Your task to perform on an android device: choose inbox layout in the gmail app Image 0: 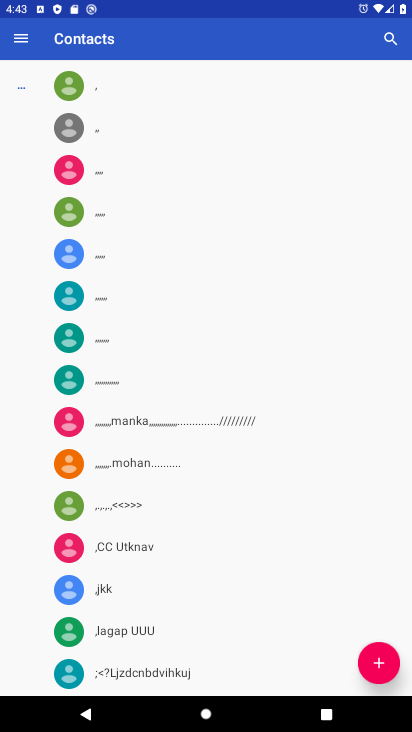
Step 0: press home button
Your task to perform on an android device: choose inbox layout in the gmail app Image 1: 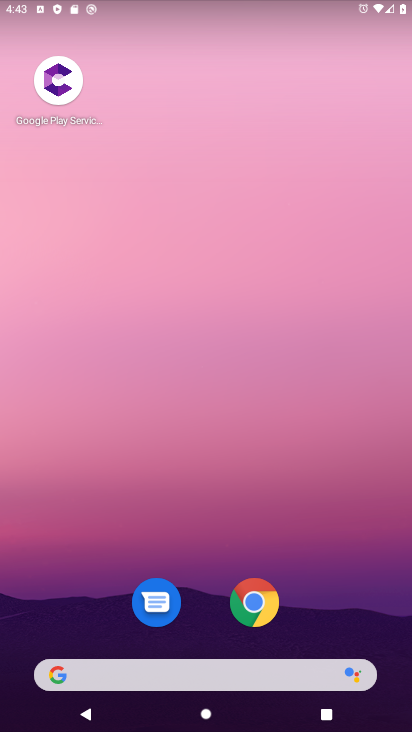
Step 1: drag from (217, 658) to (244, 266)
Your task to perform on an android device: choose inbox layout in the gmail app Image 2: 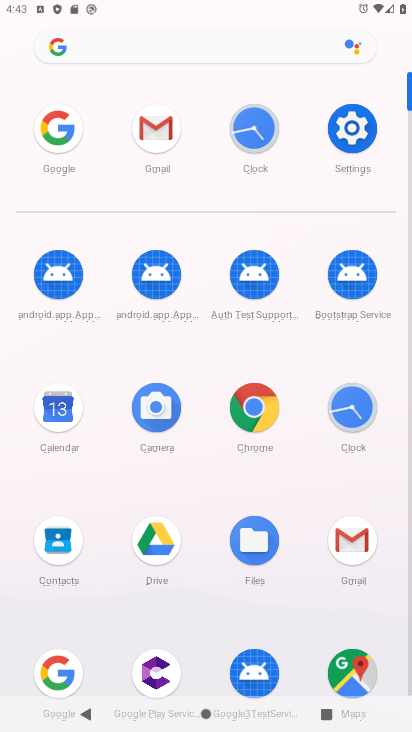
Step 2: click (342, 537)
Your task to perform on an android device: choose inbox layout in the gmail app Image 3: 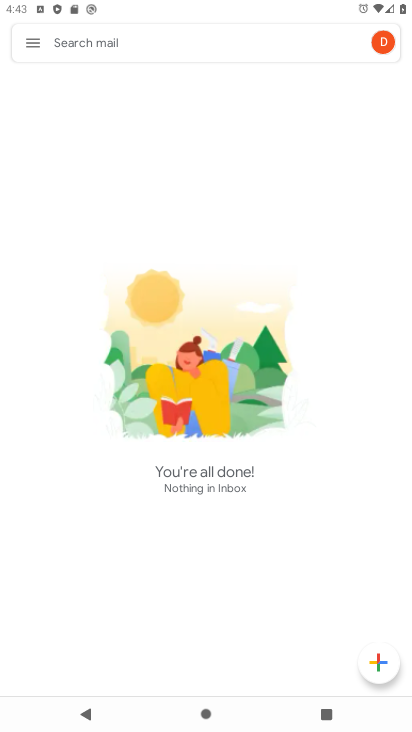
Step 3: click (33, 39)
Your task to perform on an android device: choose inbox layout in the gmail app Image 4: 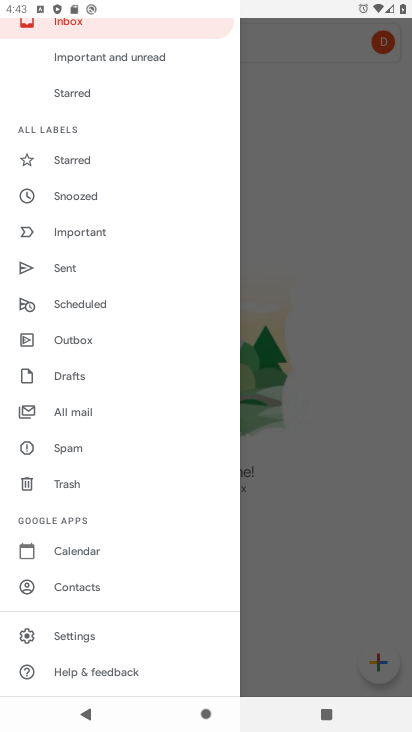
Step 4: click (92, 637)
Your task to perform on an android device: choose inbox layout in the gmail app Image 5: 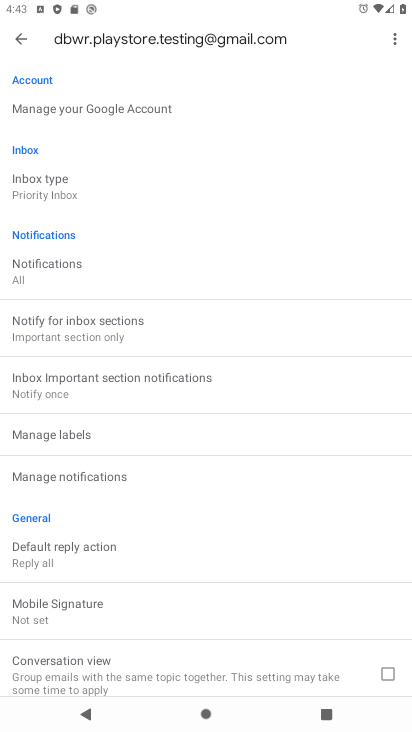
Step 5: drag from (84, 669) to (135, 274)
Your task to perform on an android device: choose inbox layout in the gmail app Image 6: 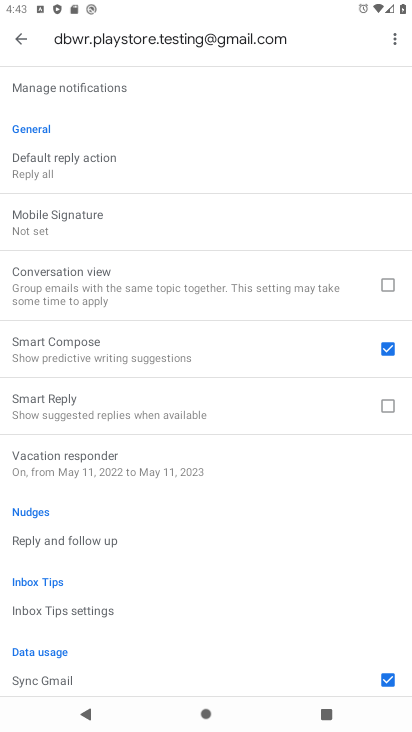
Step 6: drag from (139, 640) to (180, 279)
Your task to perform on an android device: choose inbox layout in the gmail app Image 7: 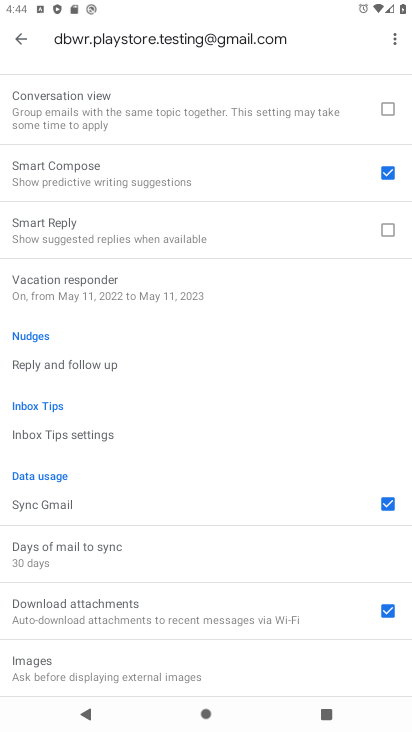
Step 7: drag from (196, 167) to (213, 509)
Your task to perform on an android device: choose inbox layout in the gmail app Image 8: 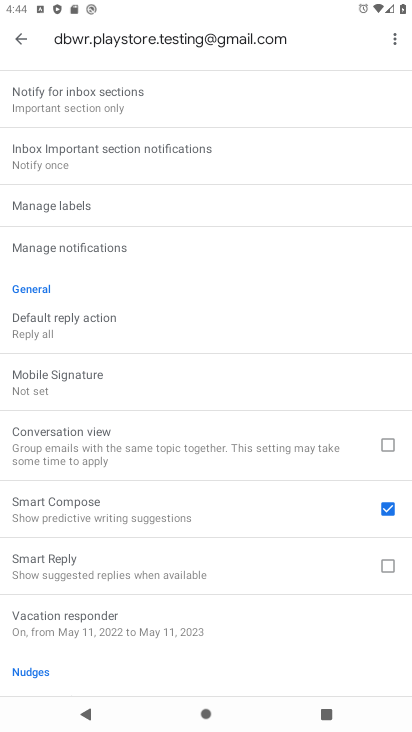
Step 8: drag from (111, 70) to (133, 429)
Your task to perform on an android device: choose inbox layout in the gmail app Image 9: 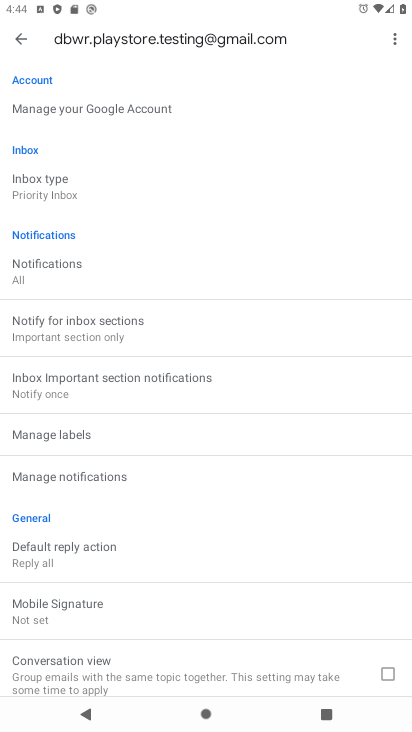
Step 9: click (28, 179)
Your task to perform on an android device: choose inbox layout in the gmail app Image 10: 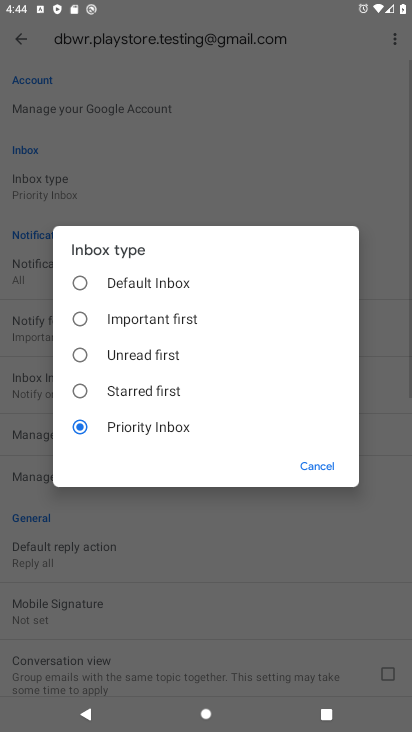
Step 10: click (118, 285)
Your task to perform on an android device: choose inbox layout in the gmail app Image 11: 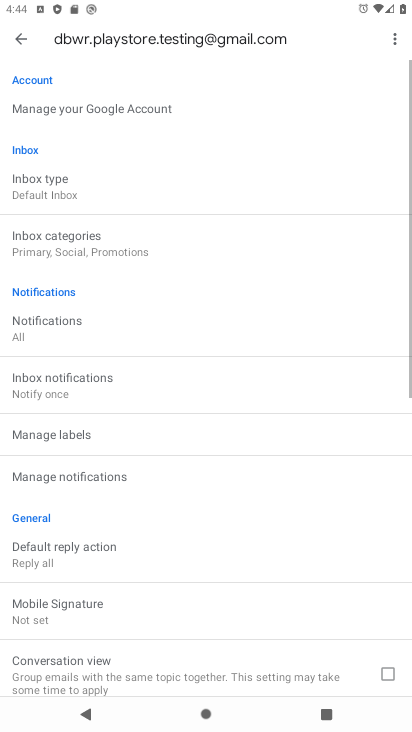
Step 11: task complete